Your task to perform on an android device: What does the iPhone 8 look like? Image 0: 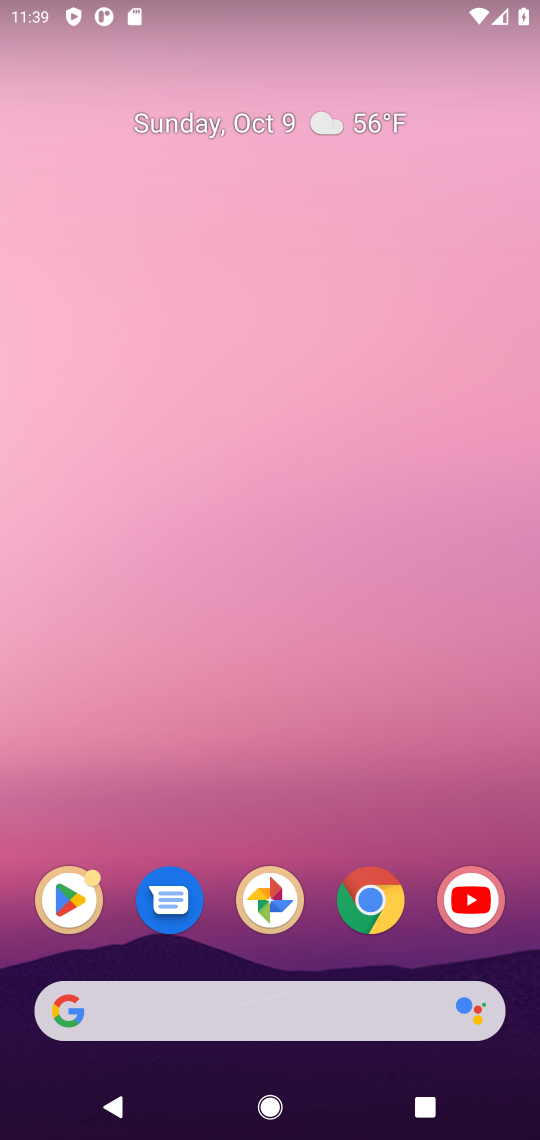
Step 0: click (288, 998)
Your task to perform on an android device: What does the iPhone 8 look like? Image 1: 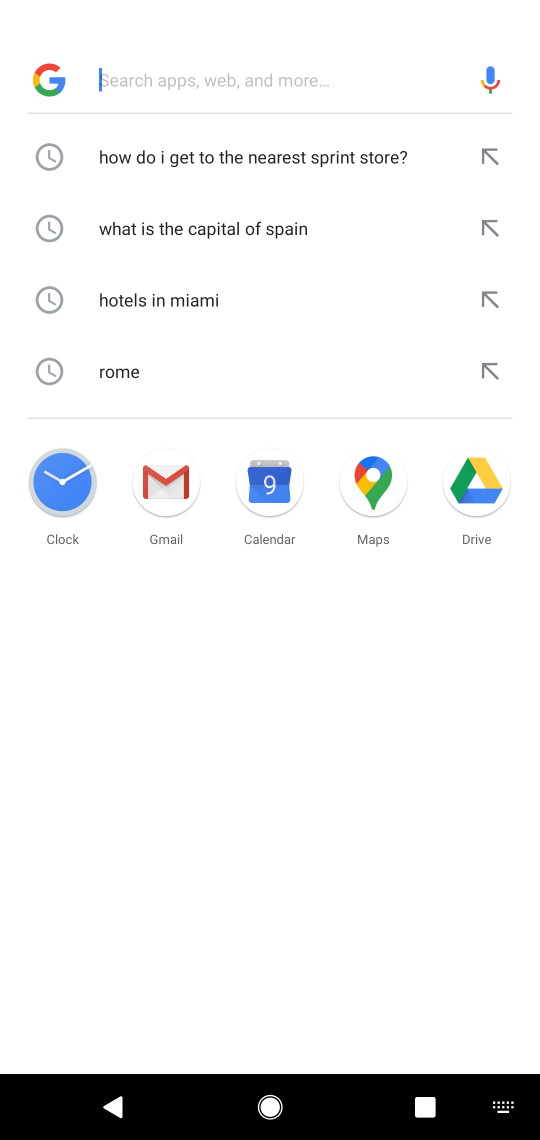
Step 1: type "What does the iPhone 8 look like?"
Your task to perform on an android device: What does the iPhone 8 look like? Image 2: 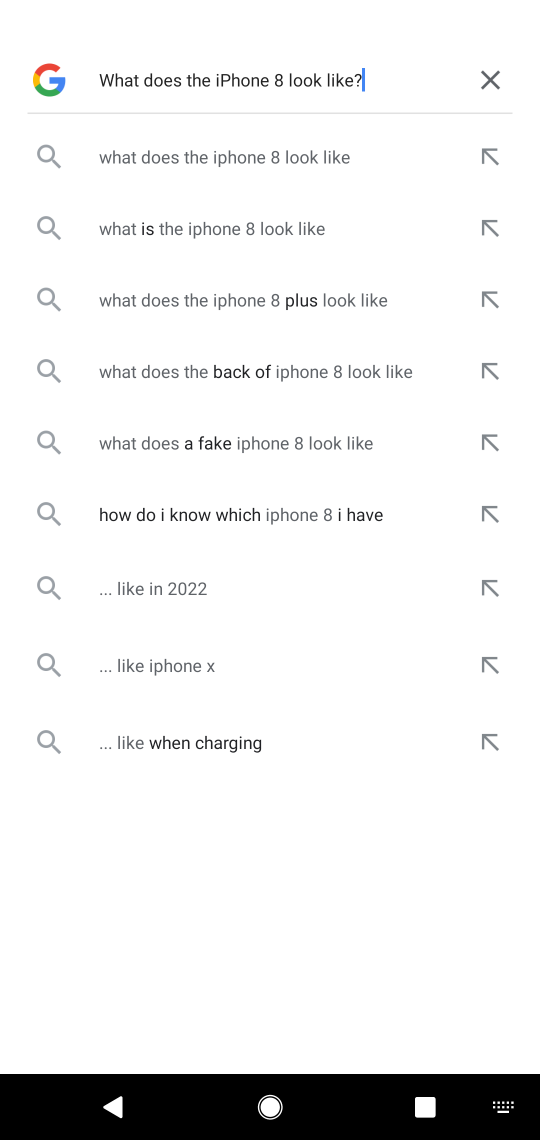
Step 2: type ""
Your task to perform on an android device: What does the iPhone 8 look like? Image 3: 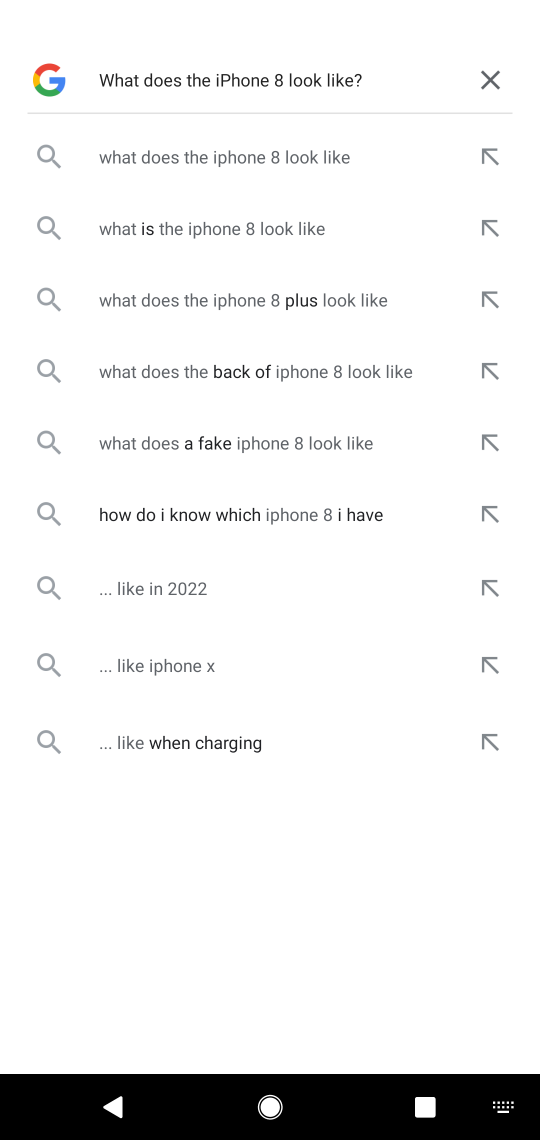
Step 3: press enter
Your task to perform on an android device: What does the iPhone 8 look like? Image 4: 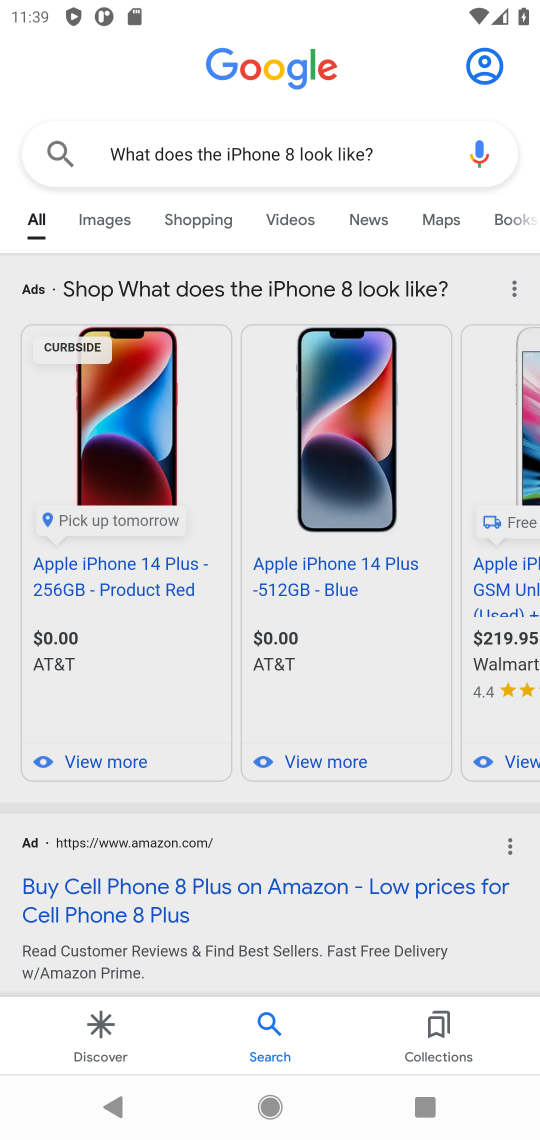
Step 4: drag from (296, 945) to (320, 158)
Your task to perform on an android device: What does the iPhone 8 look like? Image 5: 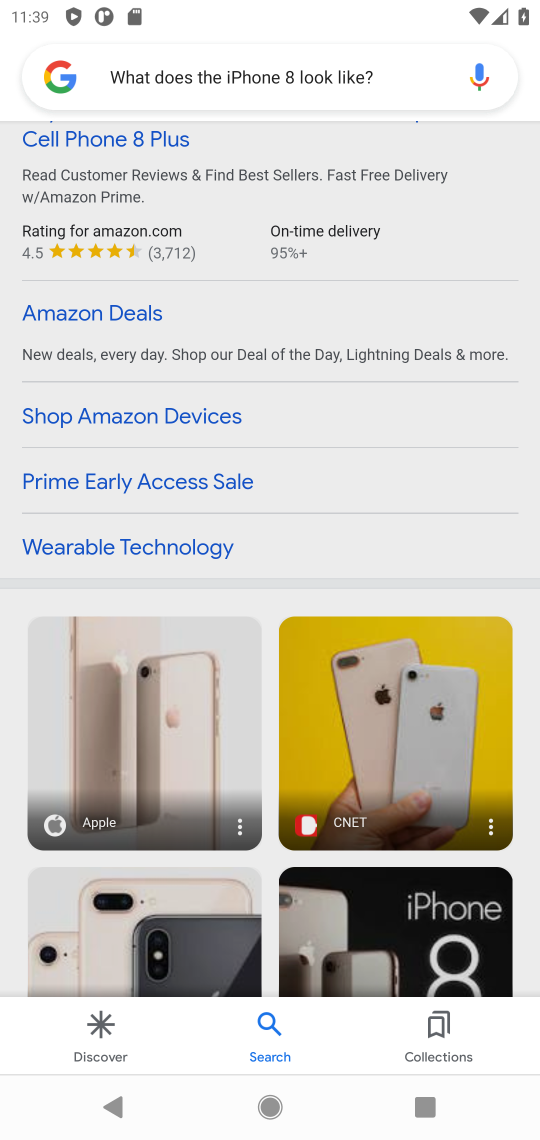
Step 5: drag from (212, 751) to (261, 246)
Your task to perform on an android device: What does the iPhone 8 look like? Image 6: 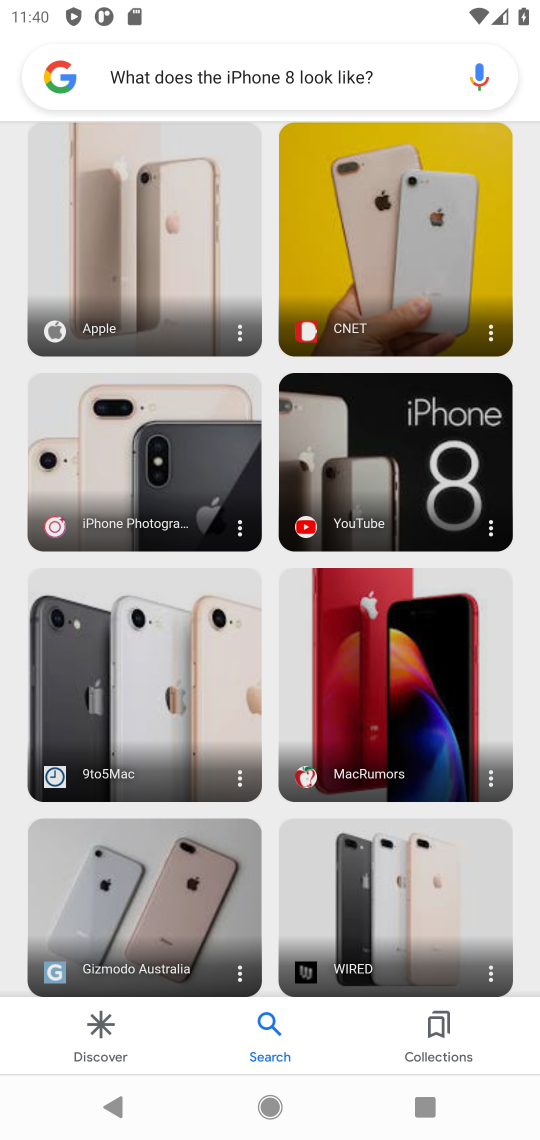
Step 6: drag from (218, 717) to (209, 299)
Your task to perform on an android device: What does the iPhone 8 look like? Image 7: 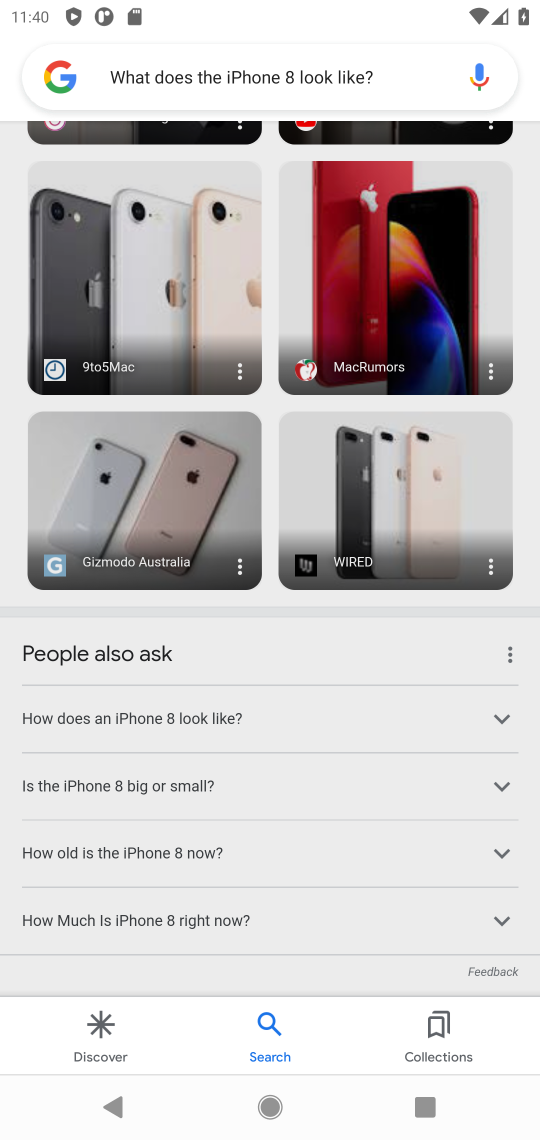
Step 7: drag from (431, 820) to (382, 470)
Your task to perform on an android device: What does the iPhone 8 look like? Image 8: 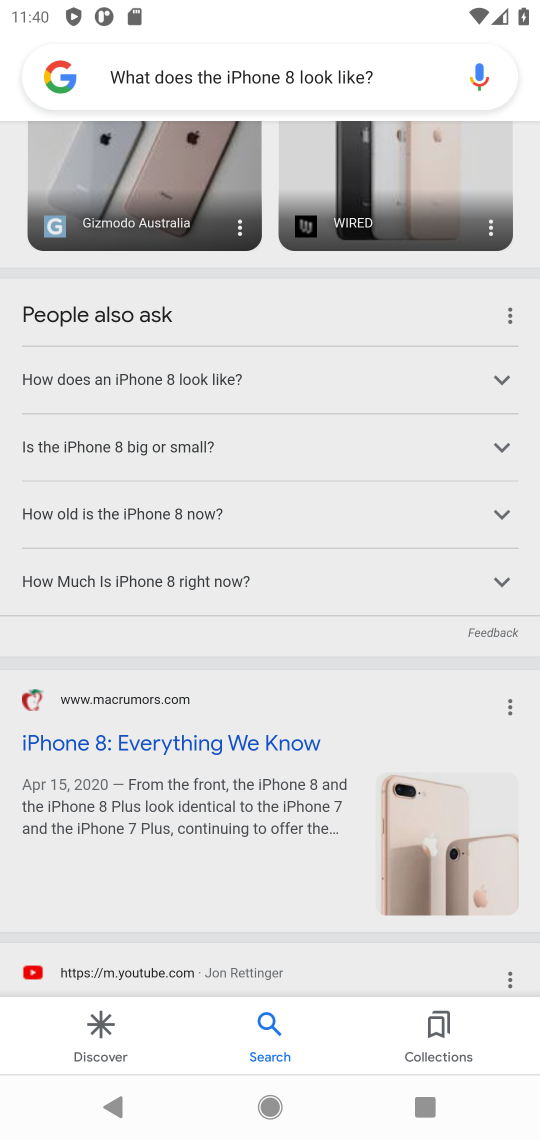
Step 8: drag from (341, 852) to (335, 475)
Your task to perform on an android device: What does the iPhone 8 look like? Image 9: 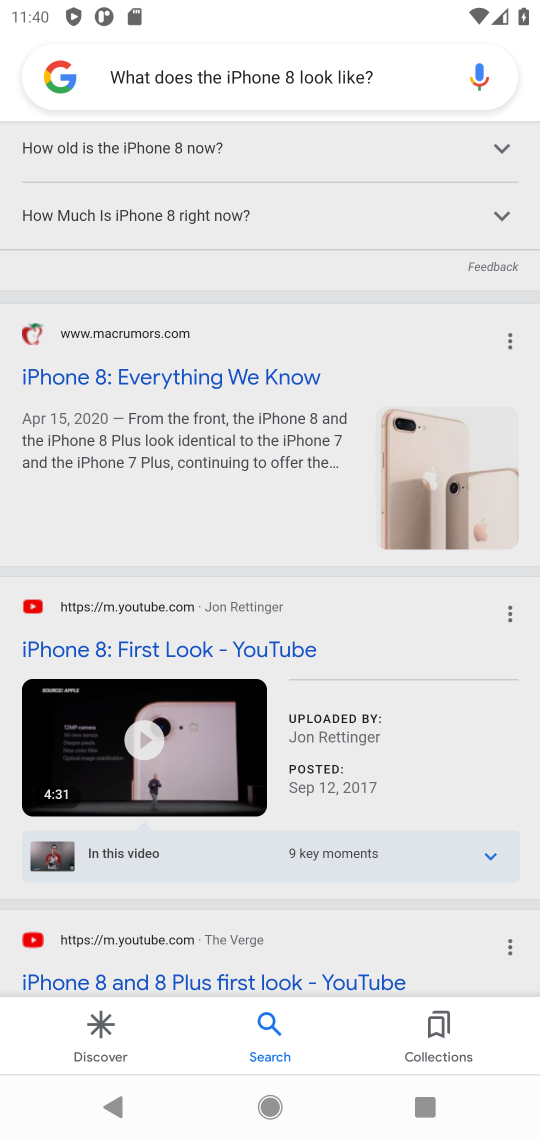
Step 9: click (105, 371)
Your task to perform on an android device: What does the iPhone 8 look like? Image 10: 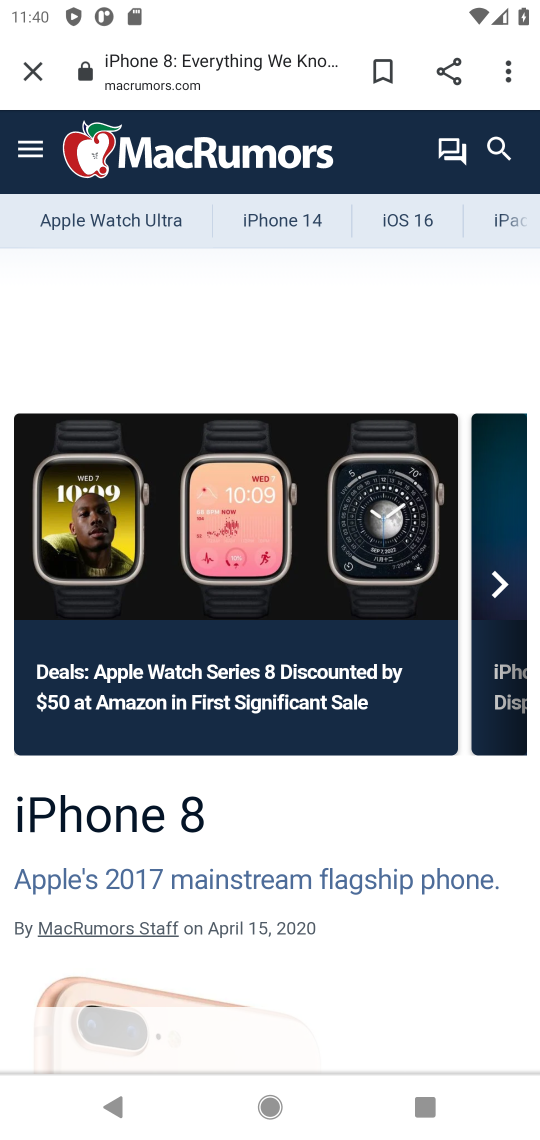
Step 10: drag from (340, 838) to (364, 331)
Your task to perform on an android device: What does the iPhone 8 look like? Image 11: 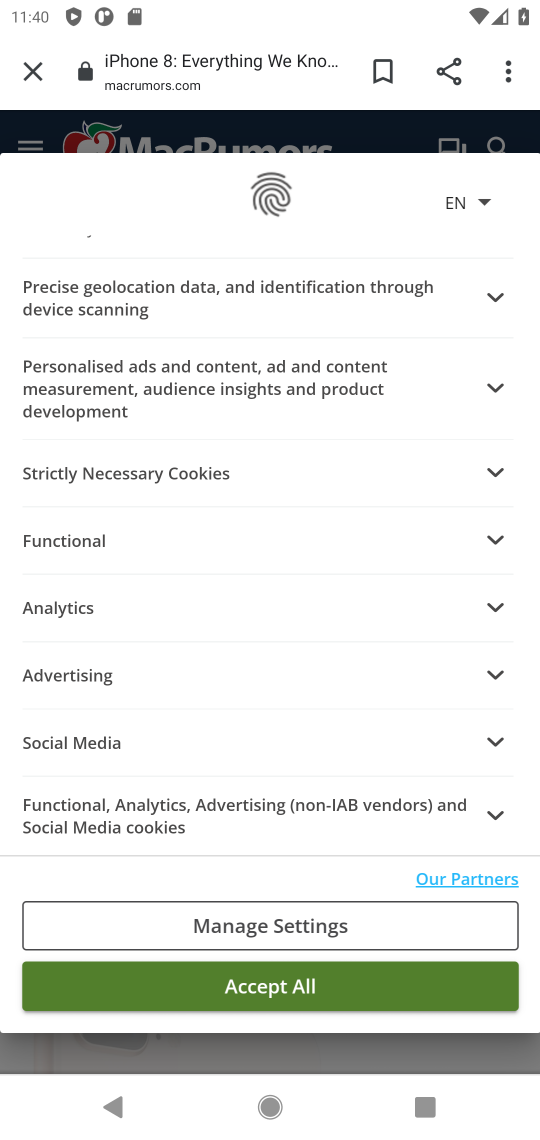
Step 11: click (302, 986)
Your task to perform on an android device: What does the iPhone 8 look like? Image 12: 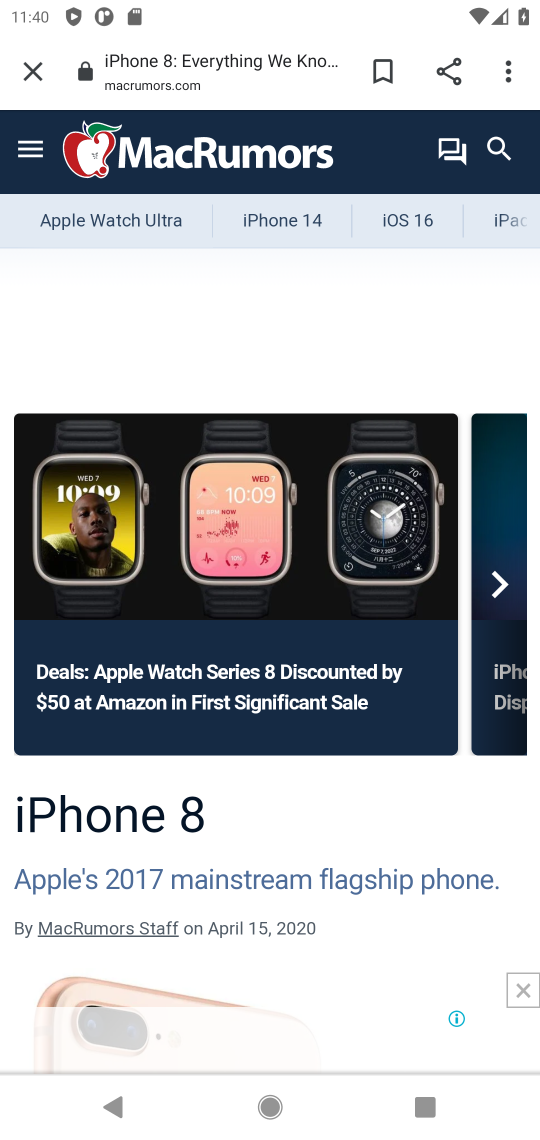
Step 12: drag from (328, 957) to (376, 315)
Your task to perform on an android device: What does the iPhone 8 look like? Image 13: 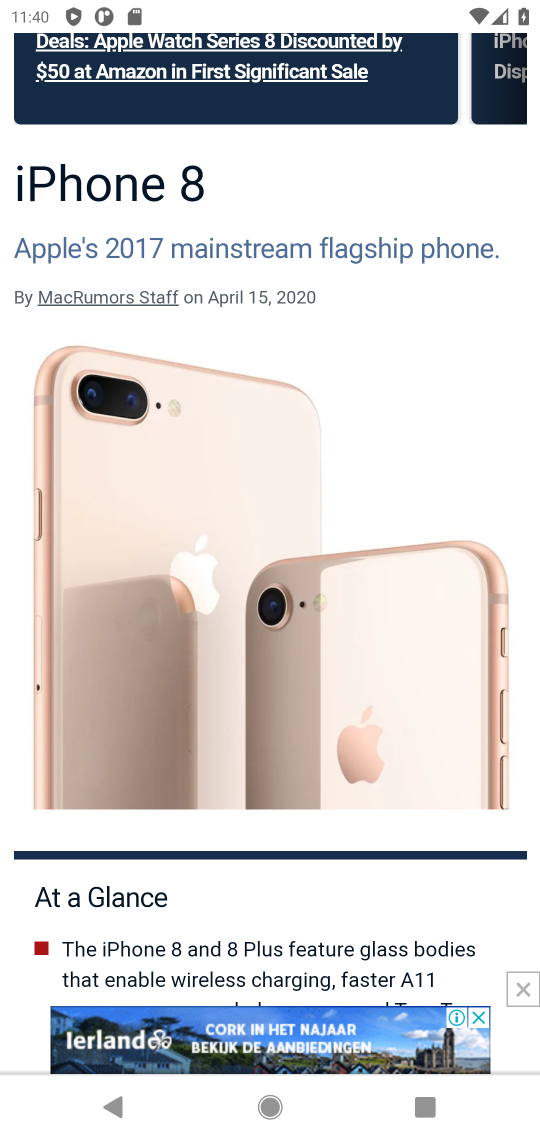
Step 13: drag from (426, 840) to (438, 372)
Your task to perform on an android device: What does the iPhone 8 look like? Image 14: 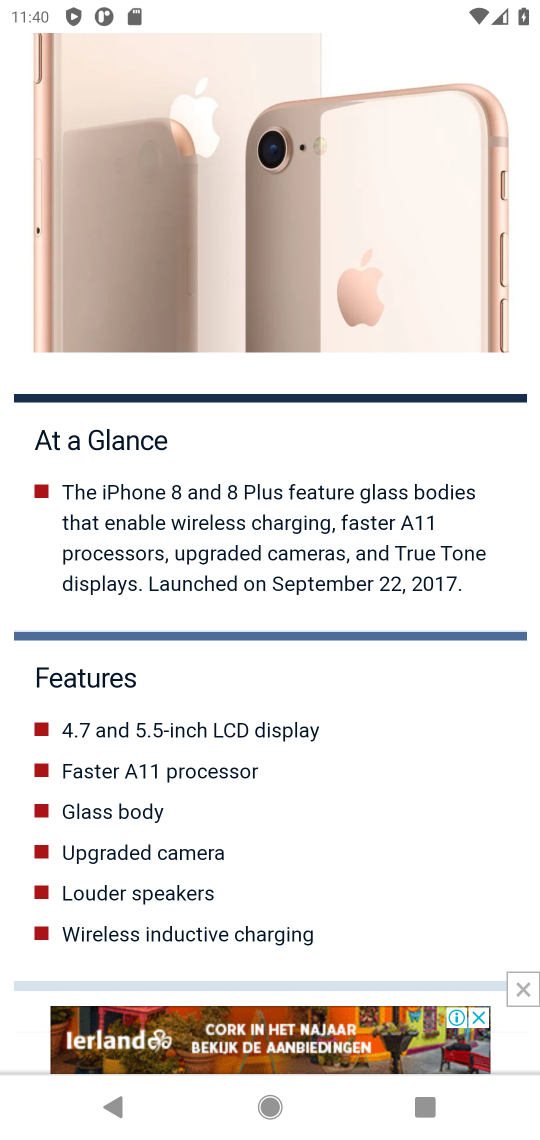
Step 14: drag from (412, 715) to (385, 321)
Your task to perform on an android device: What does the iPhone 8 look like? Image 15: 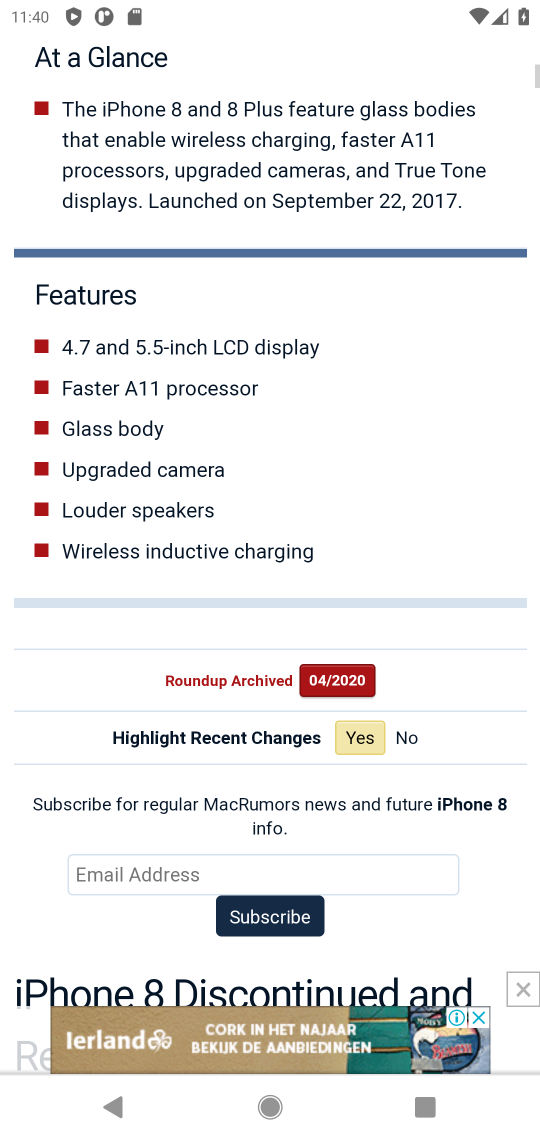
Step 15: drag from (412, 748) to (406, 391)
Your task to perform on an android device: What does the iPhone 8 look like? Image 16: 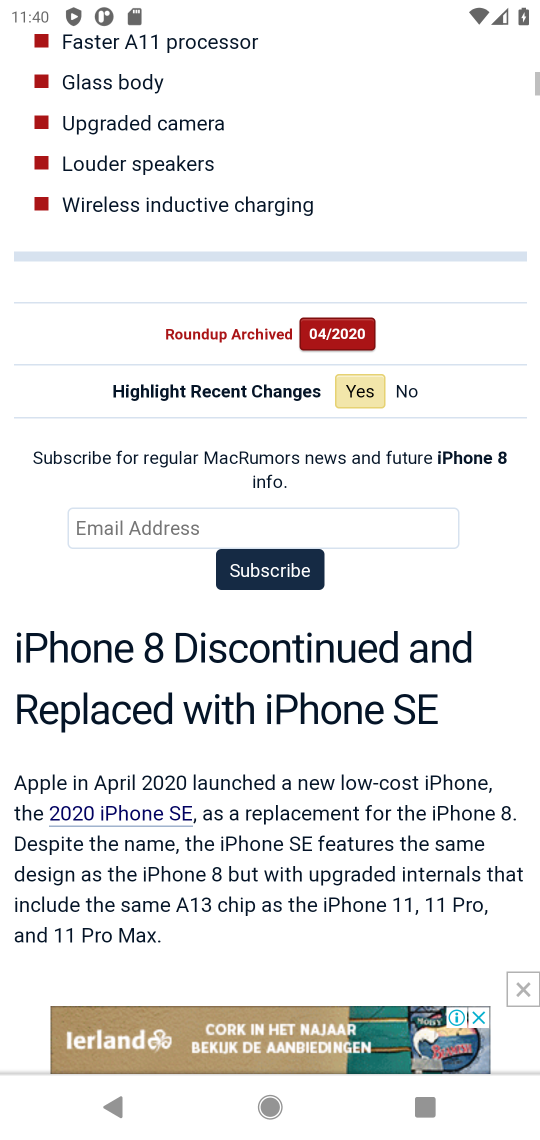
Step 16: drag from (428, 745) to (433, 296)
Your task to perform on an android device: What does the iPhone 8 look like? Image 17: 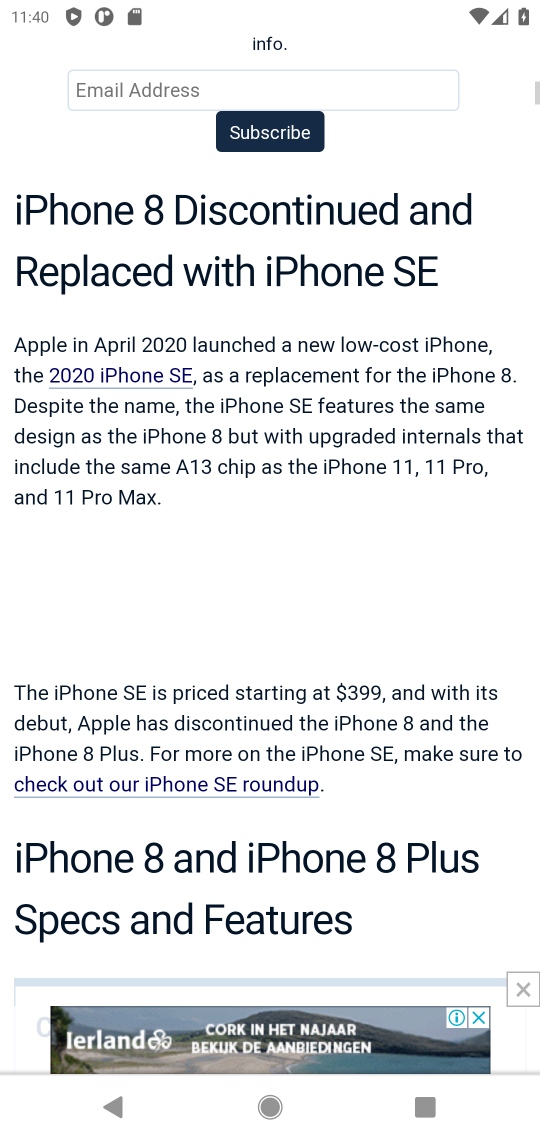
Step 17: drag from (399, 776) to (417, 309)
Your task to perform on an android device: What does the iPhone 8 look like? Image 18: 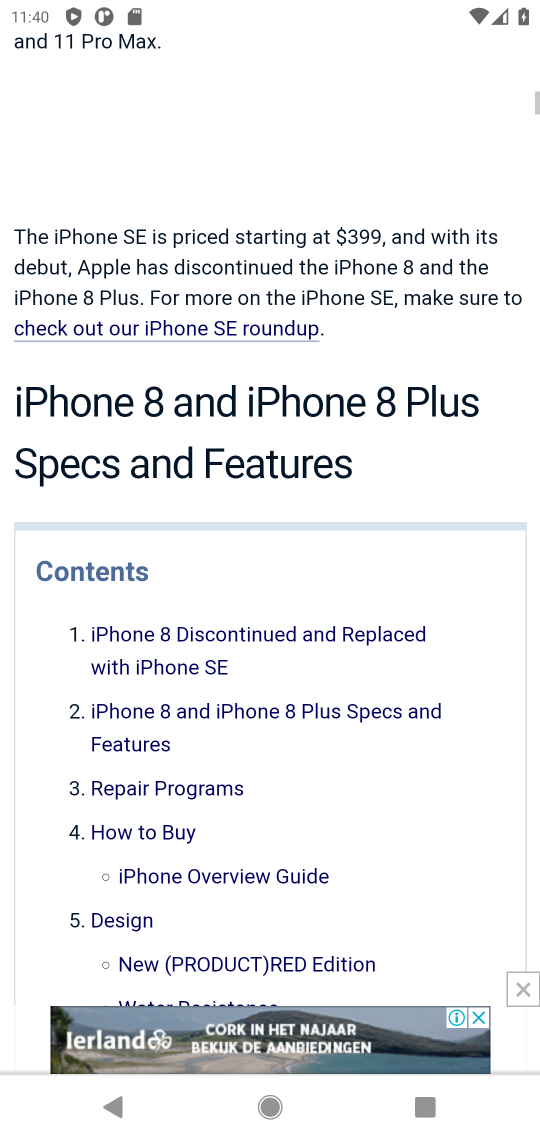
Step 18: drag from (376, 784) to (376, 389)
Your task to perform on an android device: What does the iPhone 8 look like? Image 19: 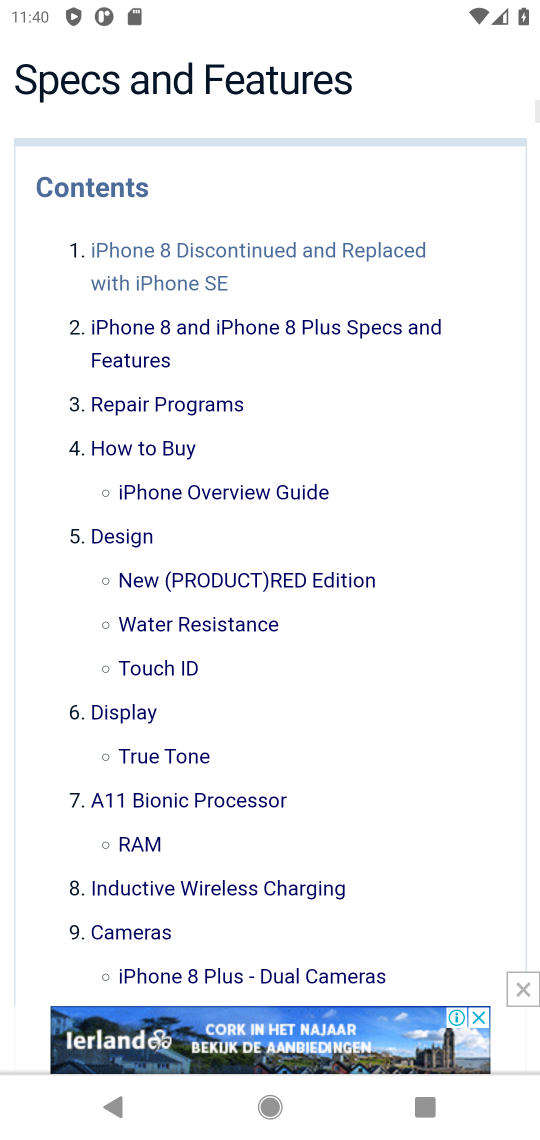
Step 19: press back button
Your task to perform on an android device: What does the iPhone 8 look like? Image 20: 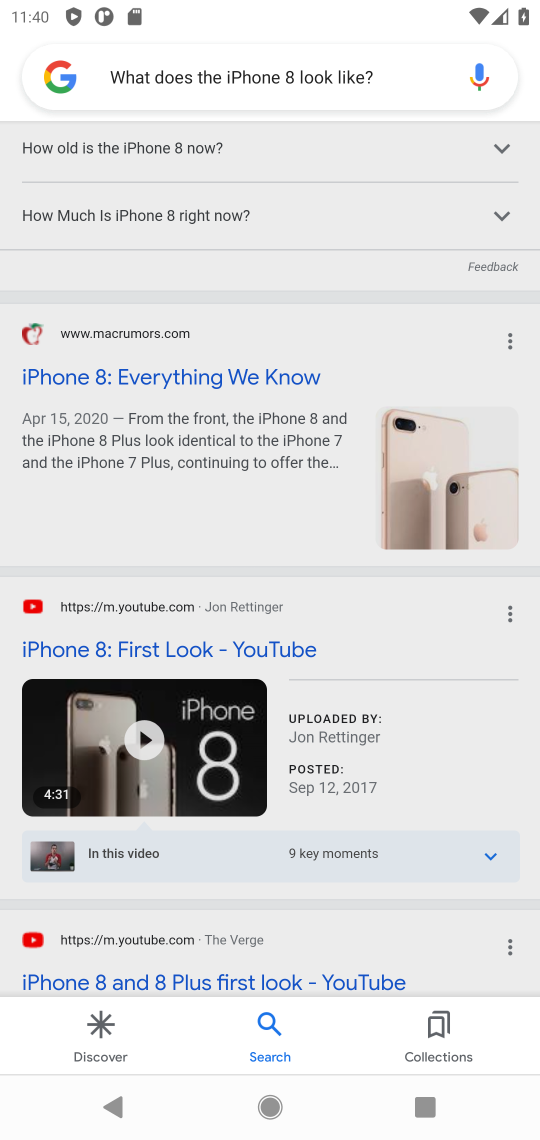
Step 20: drag from (325, 814) to (367, 977)
Your task to perform on an android device: What does the iPhone 8 look like? Image 21: 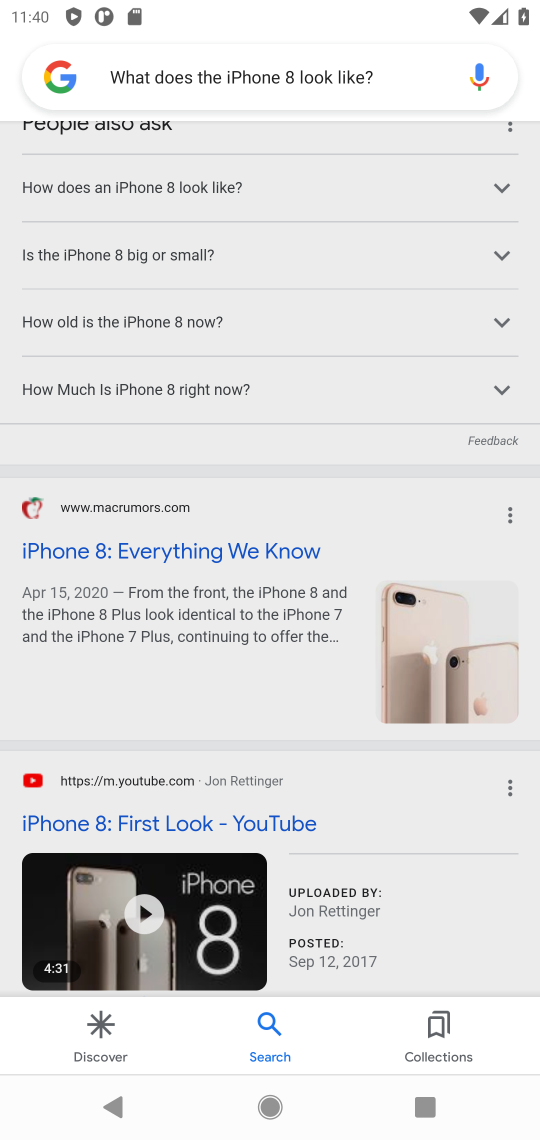
Step 21: drag from (316, 284) to (379, 866)
Your task to perform on an android device: What does the iPhone 8 look like? Image 22: 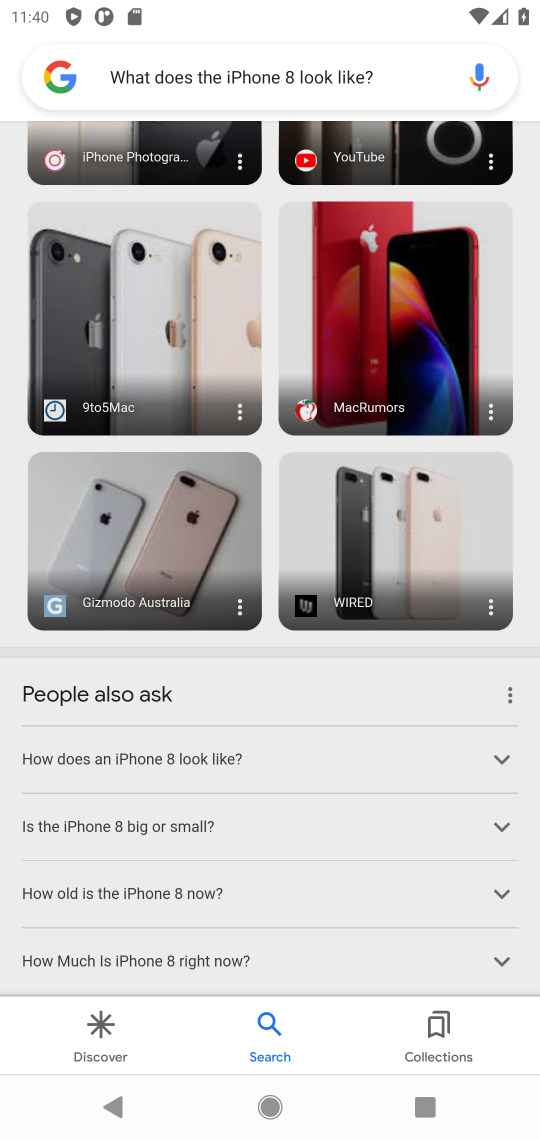
Step 22: drag from (332, 263) to (337, 919)
Your task to perform on an android device: What does the iPhone 8 look like? Image 23: 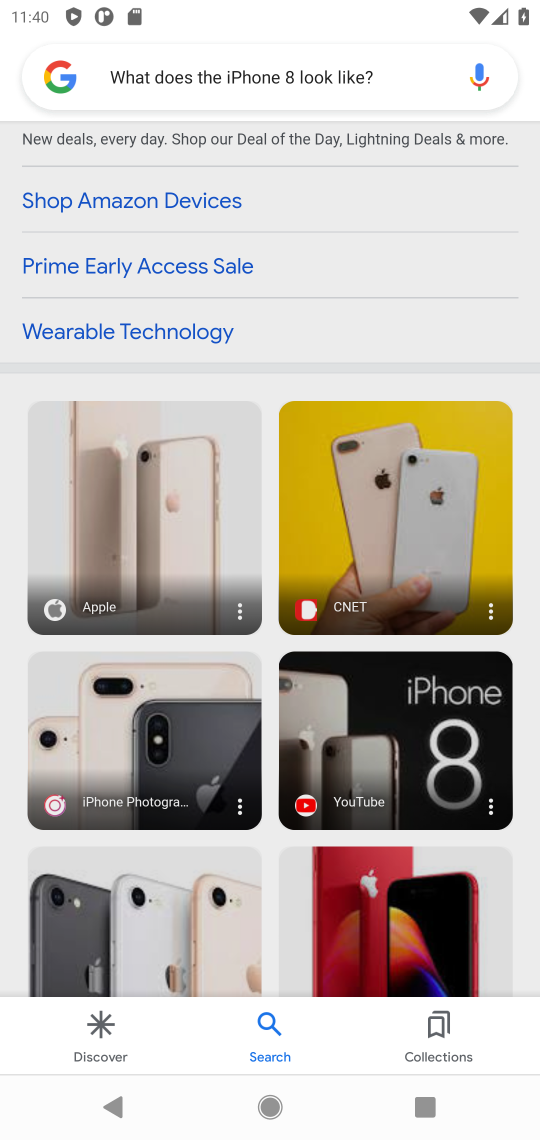
Step 23: drag from (289, 293) to (334, 939)
Your task to perform on an android device: What does the iPhone 8 look like? Image 24: 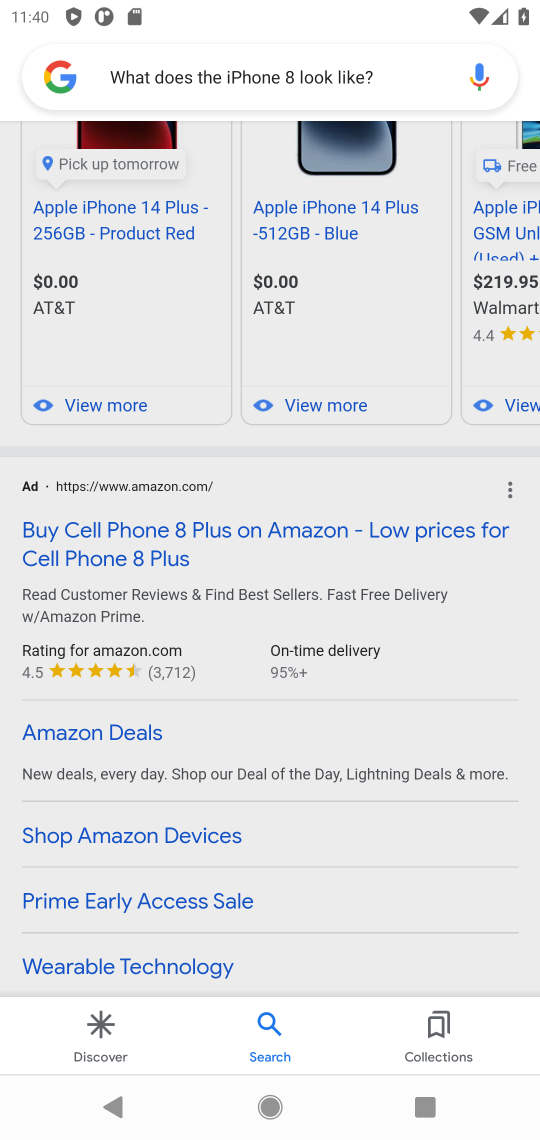
Step 24: click (224, 533)
Your task to perform on an android device: What does the iPhone 8 look like? Image 25: 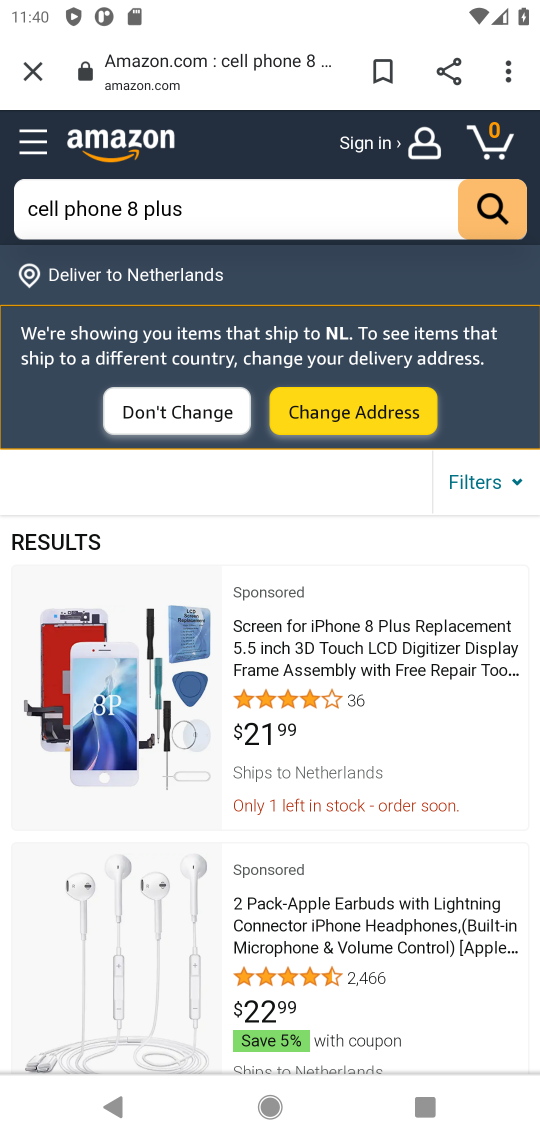
Step 25: press back button
Your task to perform on an android device: What does the iPhone 8 look like? Image 26: 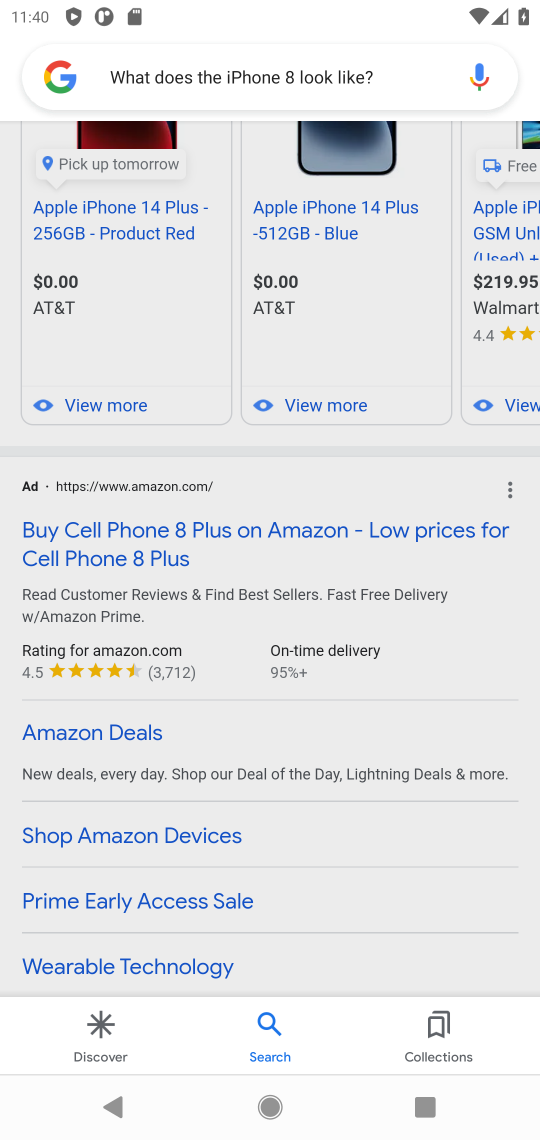
Step 26: drag from (356, 260) to (363, 964)
Your task to perform on an android device: What does the iPhone 8 look like? Image 27: 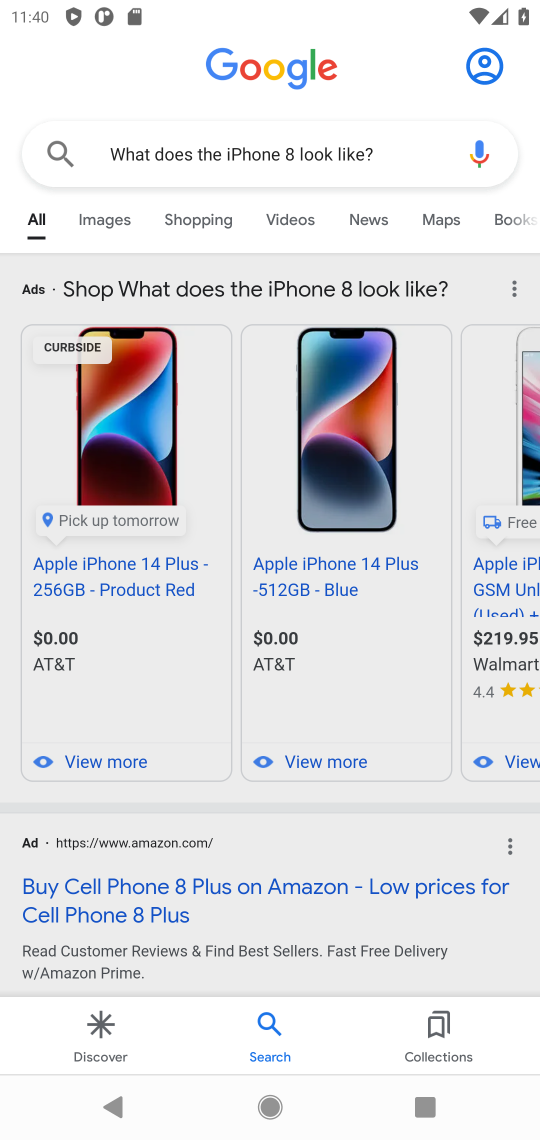
Step 27: drag from (447, 630) to (93, 603)
Your task to perform on an android device: What does the iPhone 8 look like? Image 28: 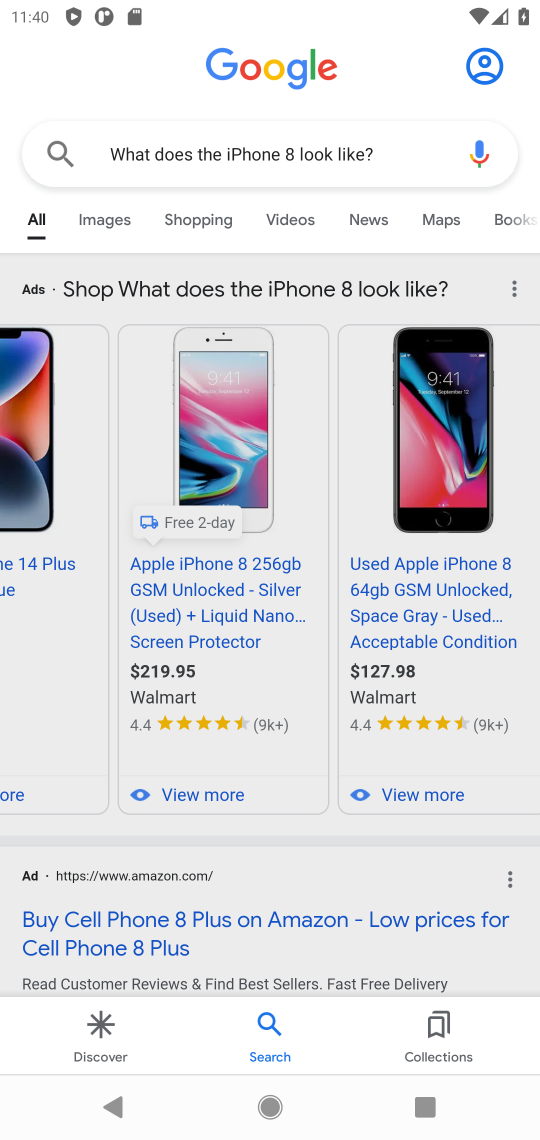
Step 28: click (260, 593)
Your task to perform on an android device: What does the iPhone 8 look like? Image 29: 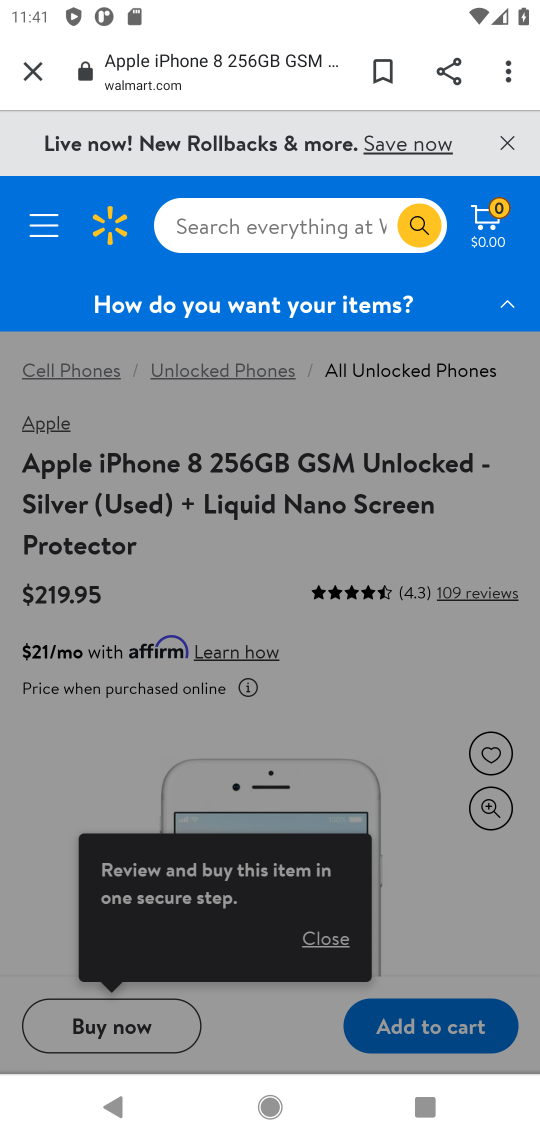
Step 29: drag from (332, 893) to (295, 480)
Your task to perform on an android device: What does the iPhone 8 look like? Image 30: 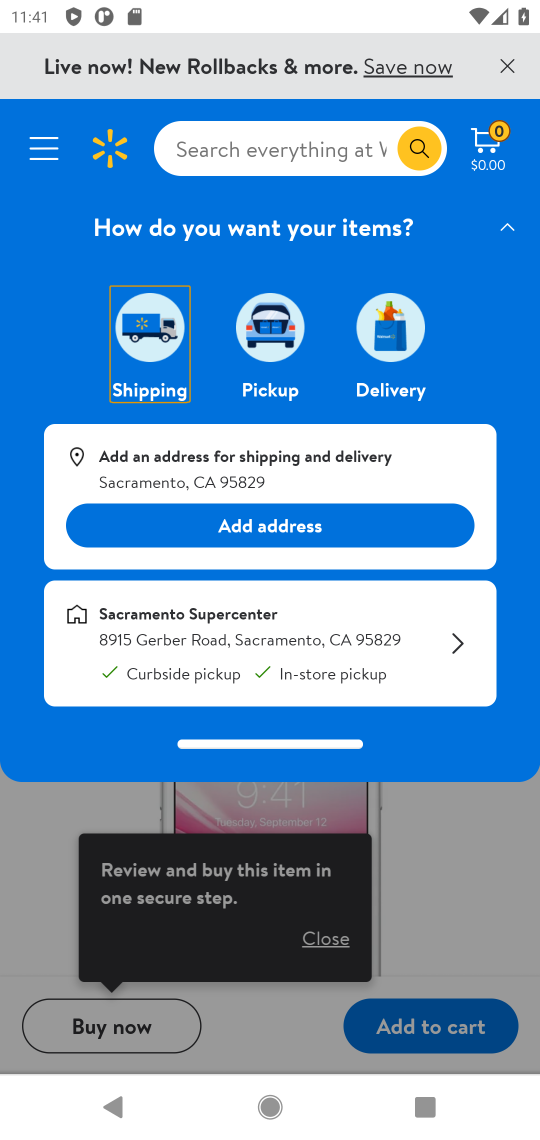
Step 30: click (387, 895)
Your task to perform on an android device: What does the iPhone 8 look like? Image 31: 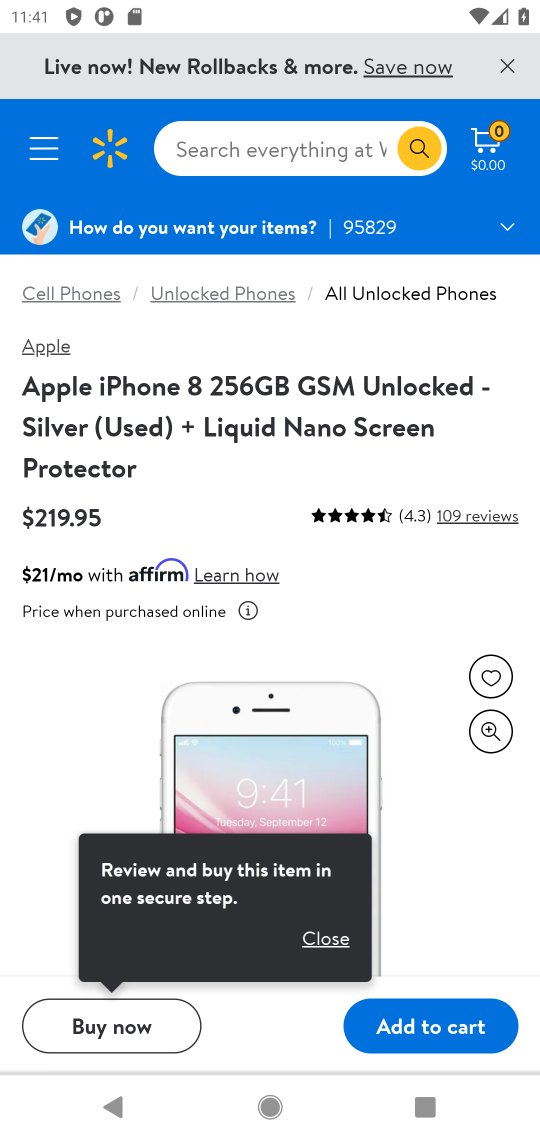
Step 31: click (323, 950)
Your task to perform on an android device: What does the iPhone 8 look like? Image 32: 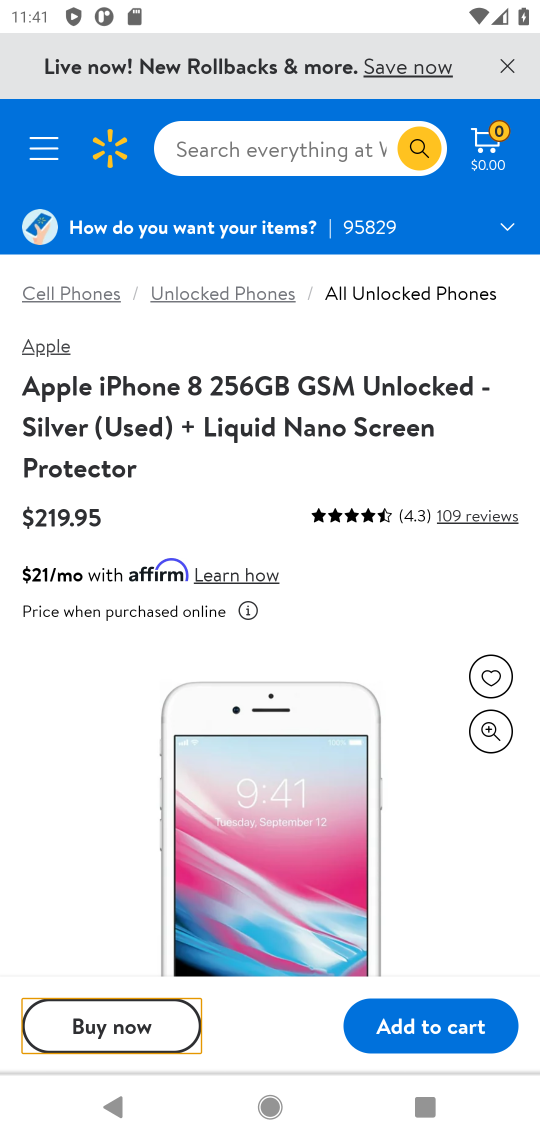
Step 32: drag from (326, 930) to (384, 283)
Your task to perform on an android device: What does the iPhone 8 look like? Image 33: 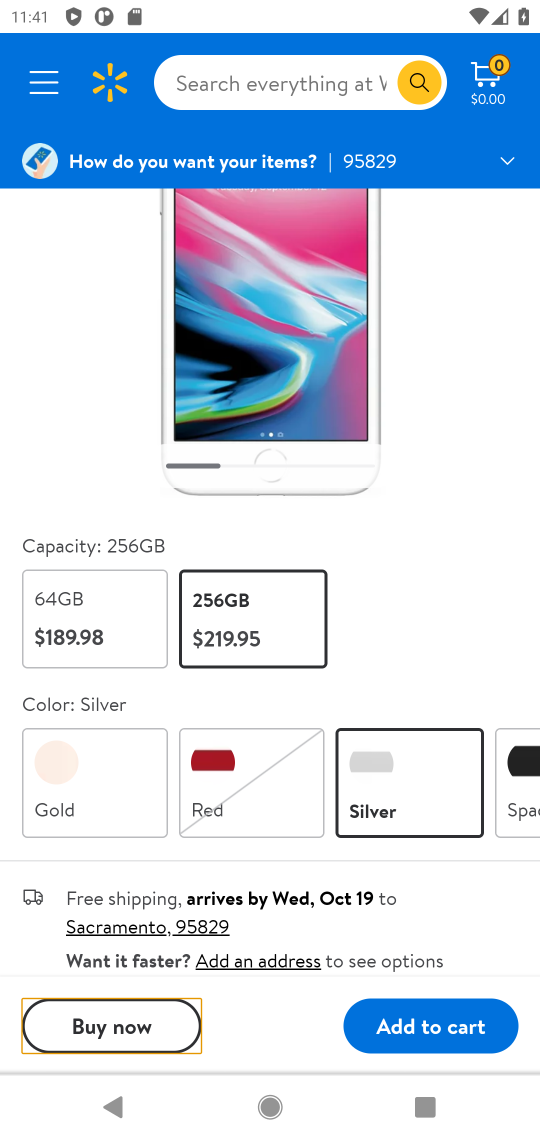
Step 33: click (307, 405)
Your task to perform on an android device: What does the iPhone 8 look like? Image 34: 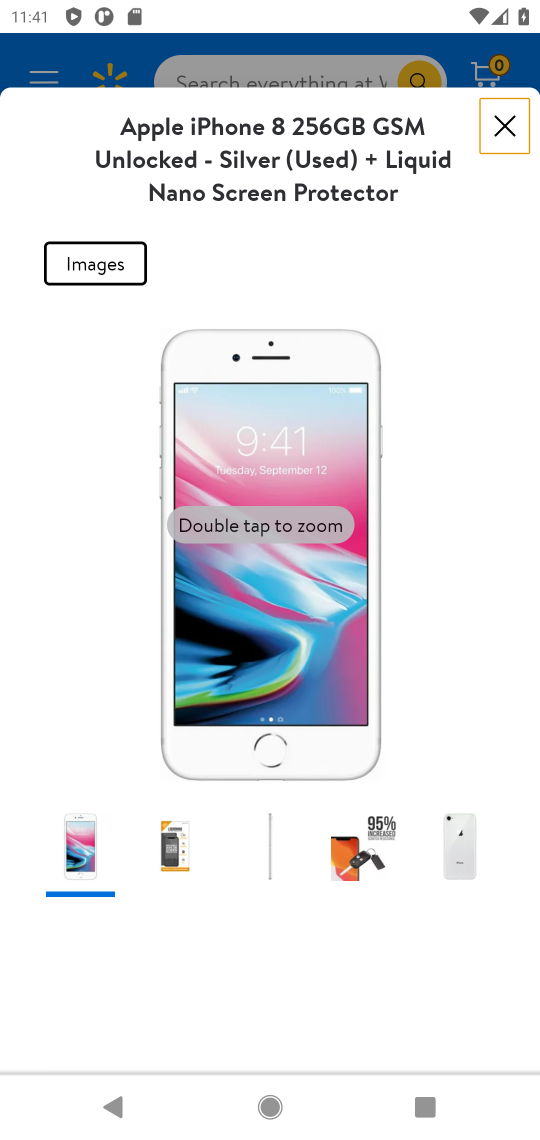
Step 34: click (179, 846)
Your task to perform on an android device: What does the iPhone 8 look like? Image 35: 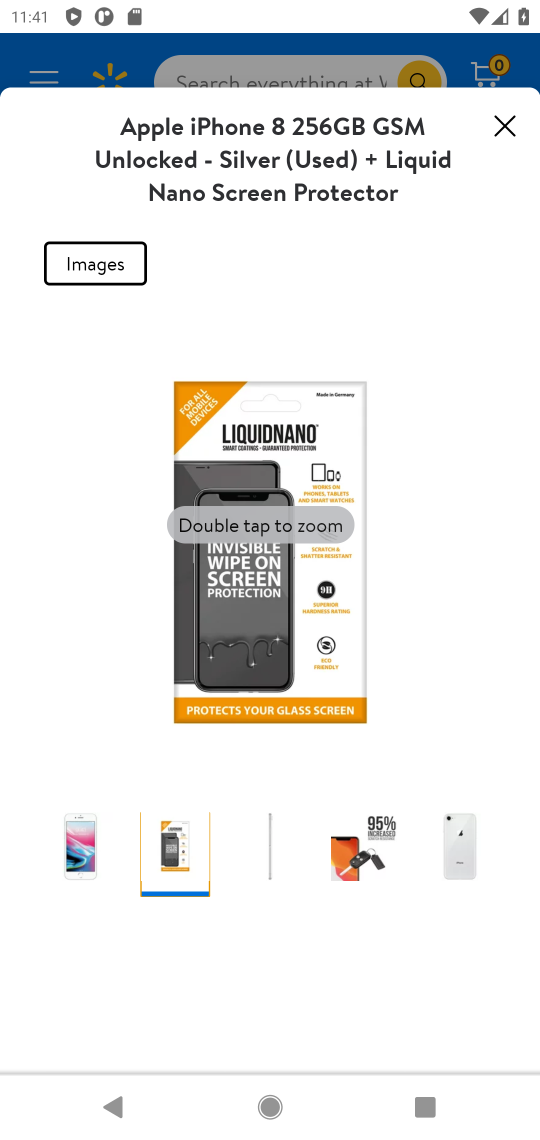
Step 35: click (272, 837)
Your task to perform on an android device: What does the iPhone 8 look like? Image 36: 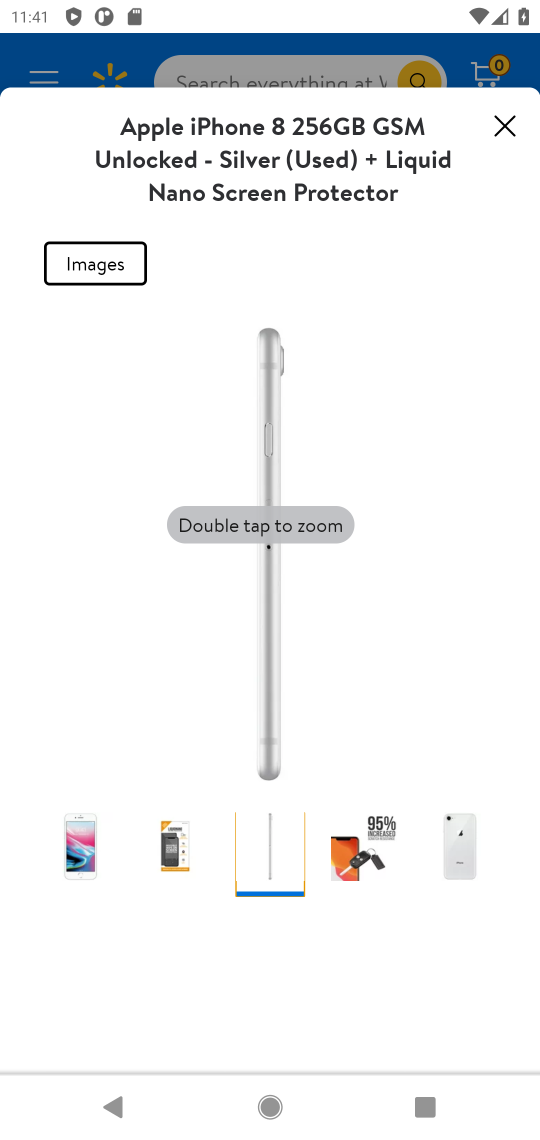
Step 36: click (345, 845)
Your task to perform on an android device: What does the iPhone 8 look like? Image 37: 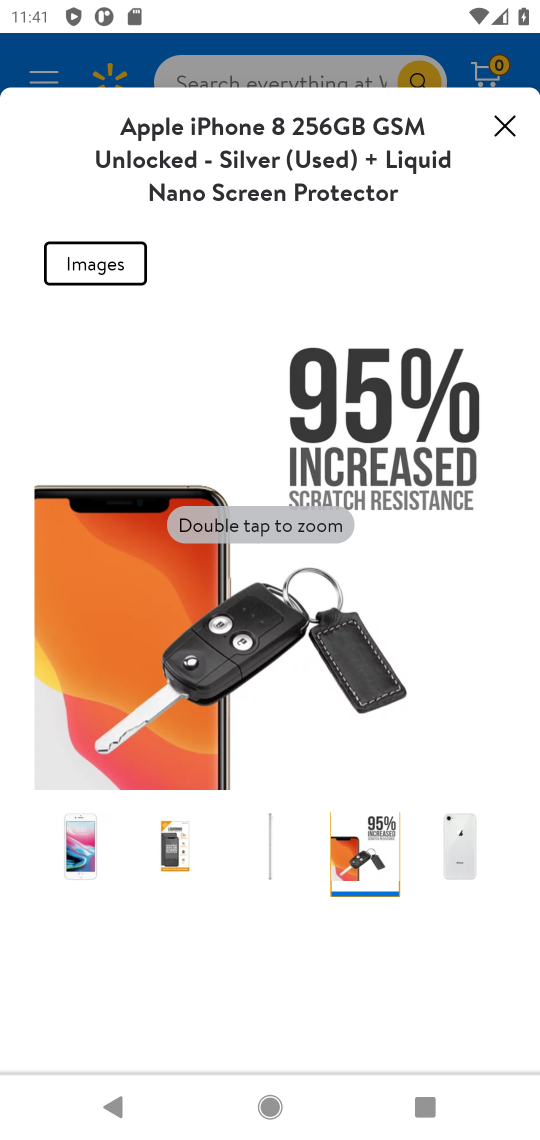
Step 37: click (461, 879)
Your task to perform on an android device: What does the iPhone 8 look like? Image 38: 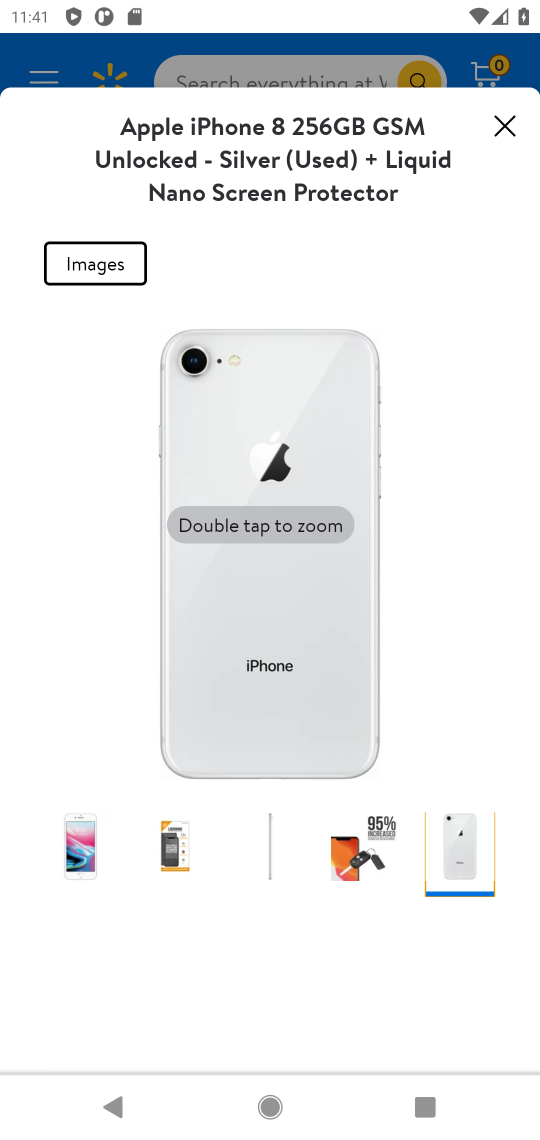
Step 38: click (266, 497)
Your task to perform on an android device: What does the iPhone 8 look like? Image 39: 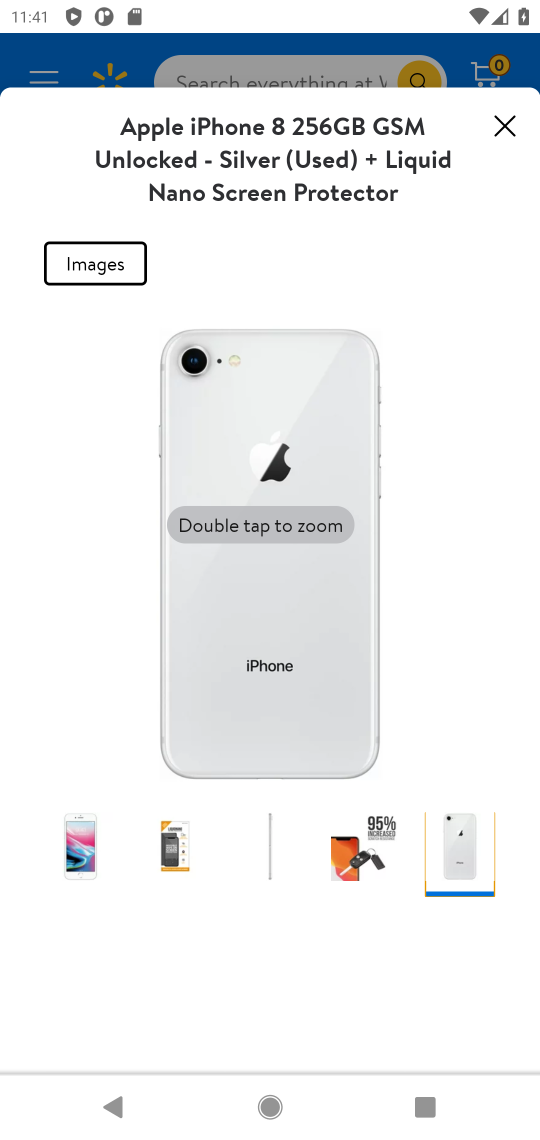
Step 39: click (519, 141)
Your task to perform on an android device: What does the iPhone 8 look like? Image 40: 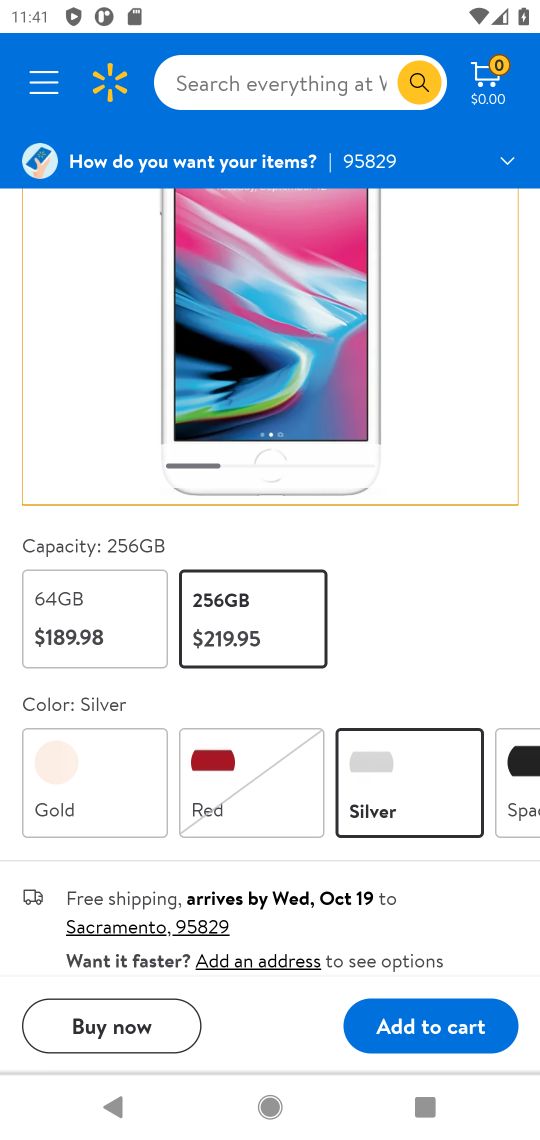
Step 40: task complete